Your task to perform on an android device: set an alarm Image 0: 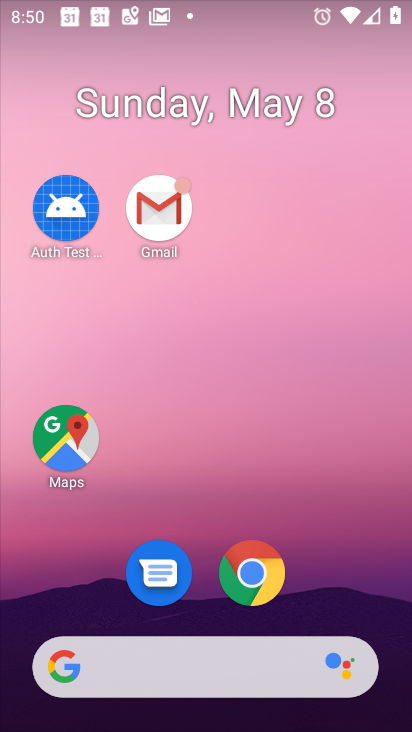
Step 0: drag from (329, 654) to (141, 296)
Your task to perform on an android device: set an alarm Image 1: 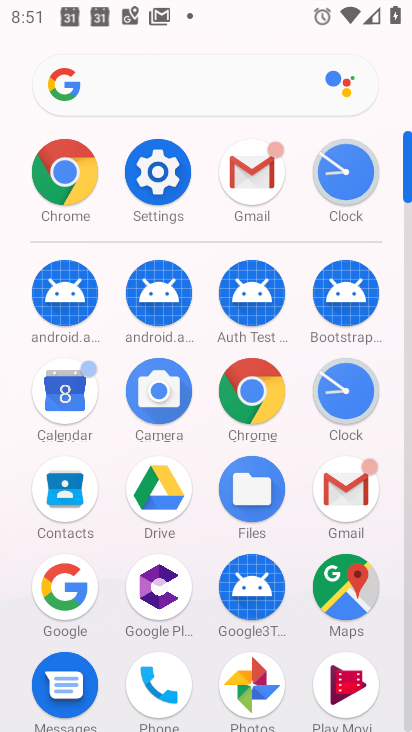
Step 1: click (344, 391)
Your task to perform on an android device: set an alarm Image 2: 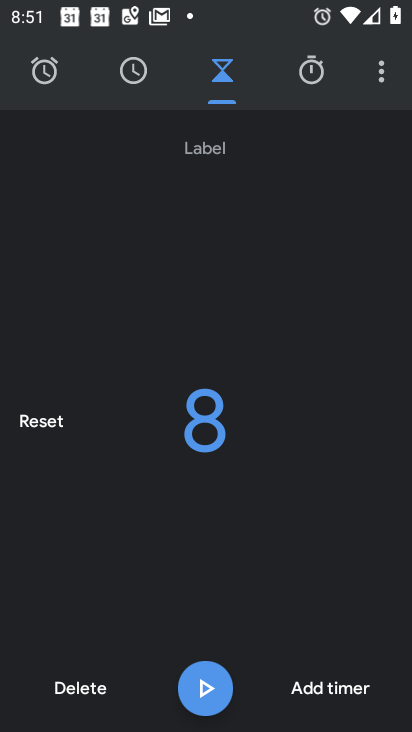
Step 2: click (48, 82)
Your task to perform on an android device: set an alarm Image 3: 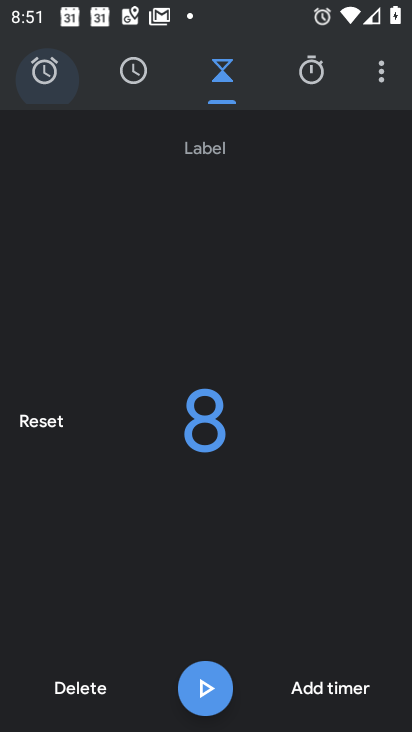
Step 3: click (48, 82)
Your task to perform on an android device: set an alarm Image 4: 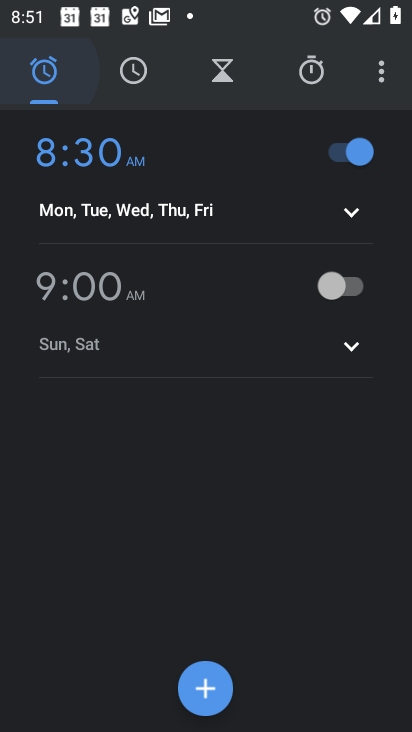
Step 4: click (49, 82)
Your task to perform on an android device: set an alarm Image 5: 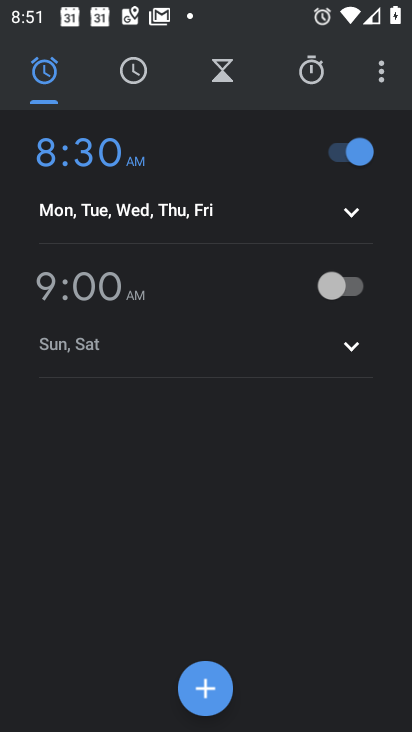
Step 5: click (334, 286)
Your task to perform on an android device: set an alarm Image 6: 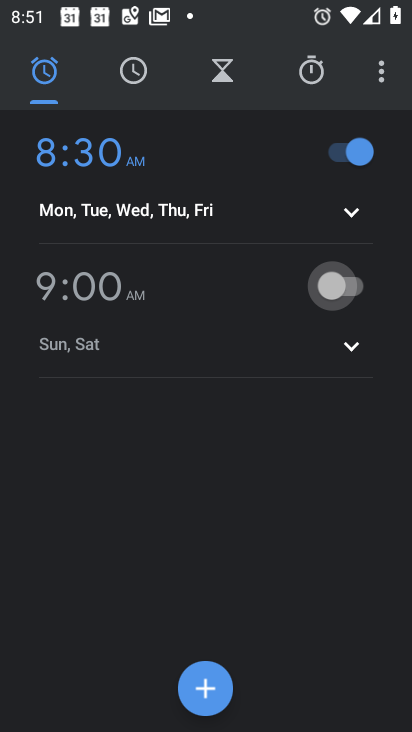
Step 6: click (334, 286)
Your task to perform on an android device: set an alarm Image 7: 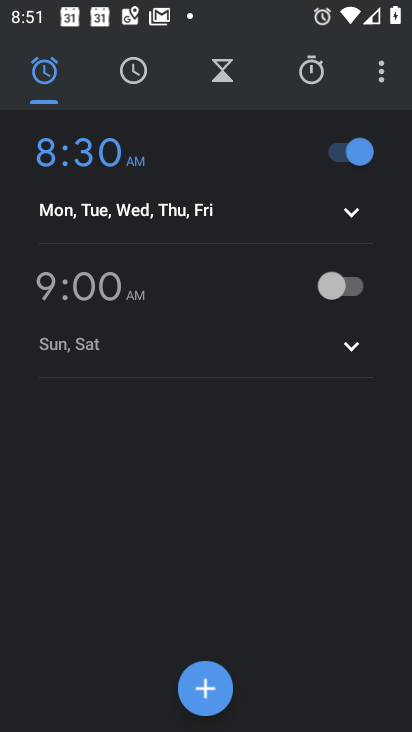
Step 7: click (332, 283)
Your task to perform on an android device: set an alarm Image 8: 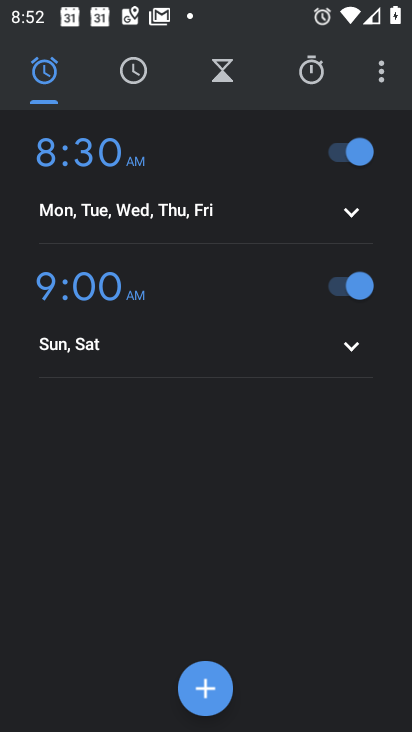
Step 8: task complete